Your task to perform on an android device: Open location settings Image 0: 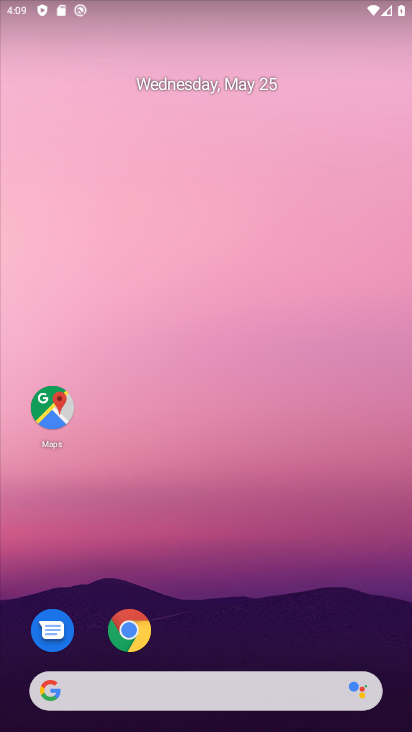
Step 0: drag from (282, 617) to (357, 38)
Your task to perform on an android device: Open location settings Image 1: 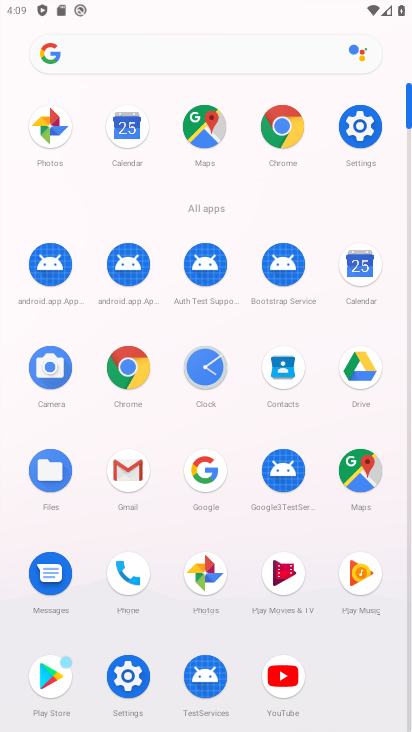
Step 1: click (368, 128)
Your task to perform on an android device: Open location settings Image 2: 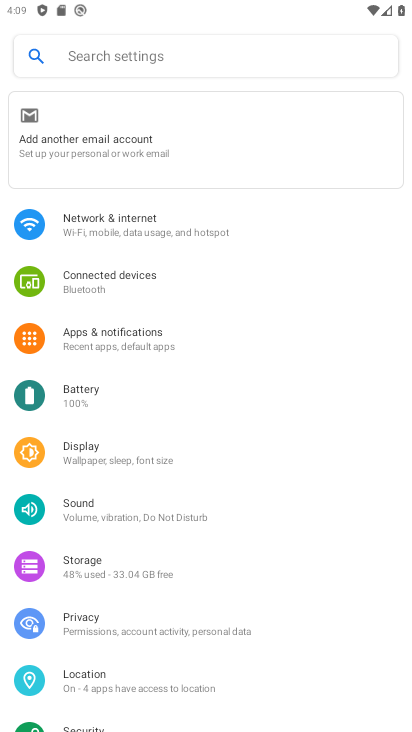
Step 2: click (83, 675)
Your task to perform on an android device: Open location settings Image 3: 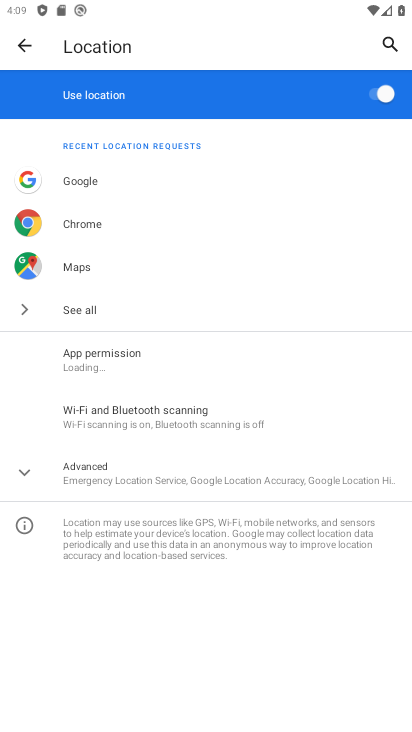
Step 3: task complete